Your task to perform on an android device: turn on the 24-hour format for clock Image 0: 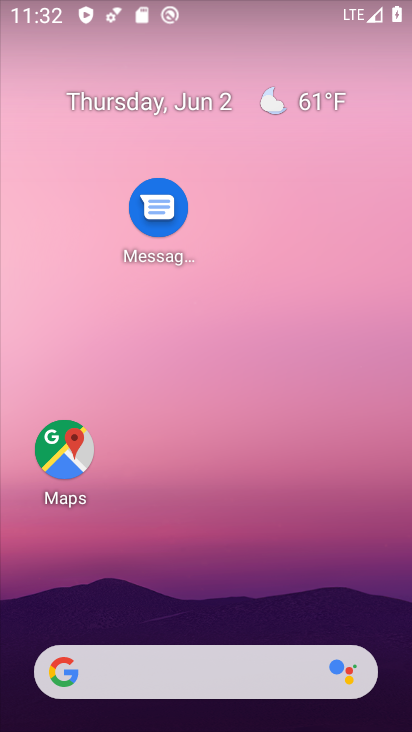
Step 0: drag from (238, 627) to (379, 18)
Your task to perform on an android device: turn on the 24-hour format for clock Image 1: 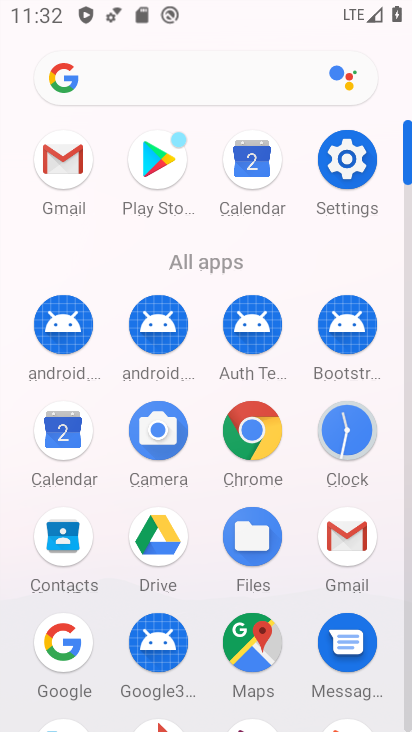
Step 1: click (351, 437)
Your task to perform on an android device: turn on the 24-hour format for clock Image 2: 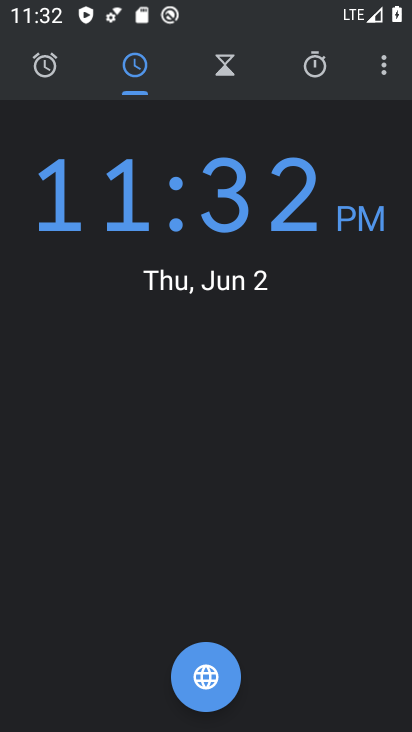
Step 2: click (381, 63)
Your task to perform on an android device: turn on the 24-hour format for clock Image 3: 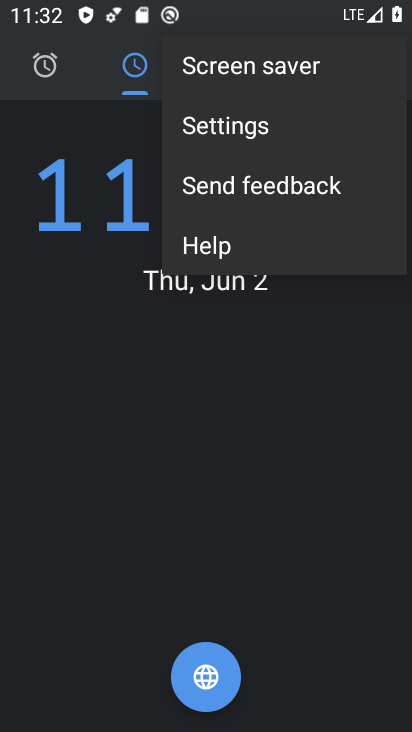
Step 3: click (267, 123)
Your task to perform on an android device: turn on the 24-hour format for clock Image 4: 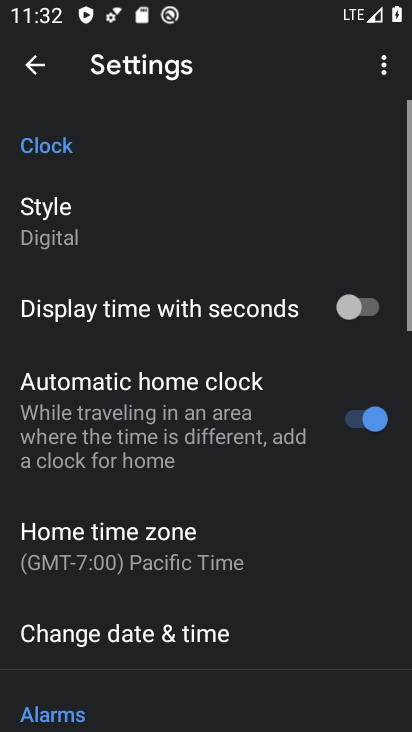
Step 4: drag from (211, 511) to (198, 208)
Your task to perform on an android device: turn on the 24-hour format for clock Image 5: 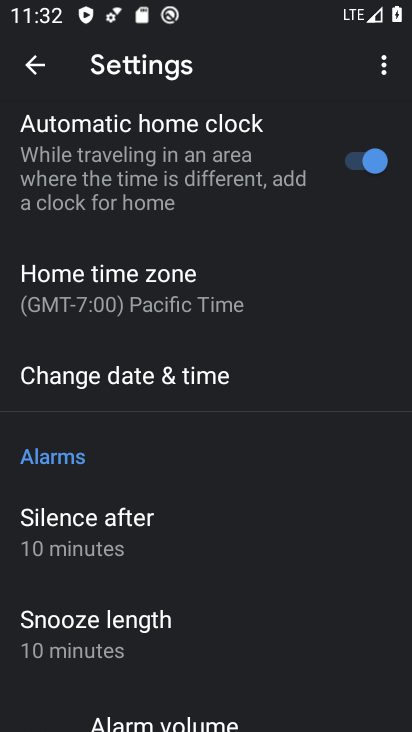
Step 5: click (164, 357)
Your task to perform on an android device: turn on the 24-hour format for clock Image 6: 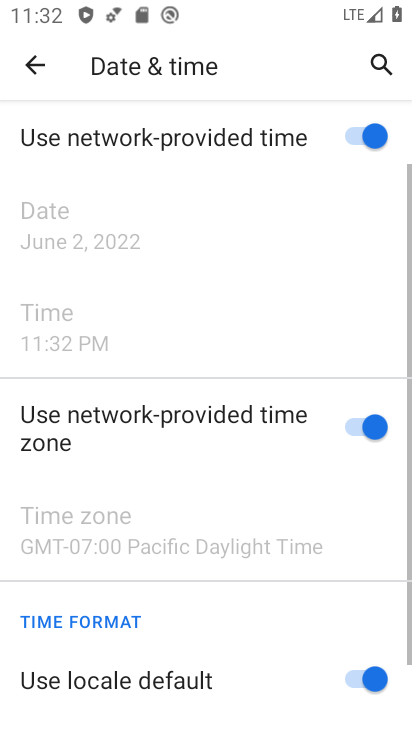
Step 6: drag from (210, 530) to (192, 48)
Your task to perform on an android device: turn on the 24-hour format for clock Image 7: 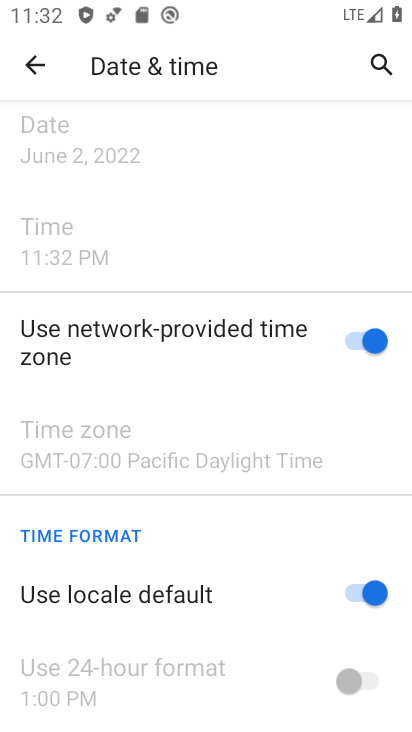
Step 7: click (372, 585)
Your task to perform on an android device: turn on the 24-hour format for clock Image 8: 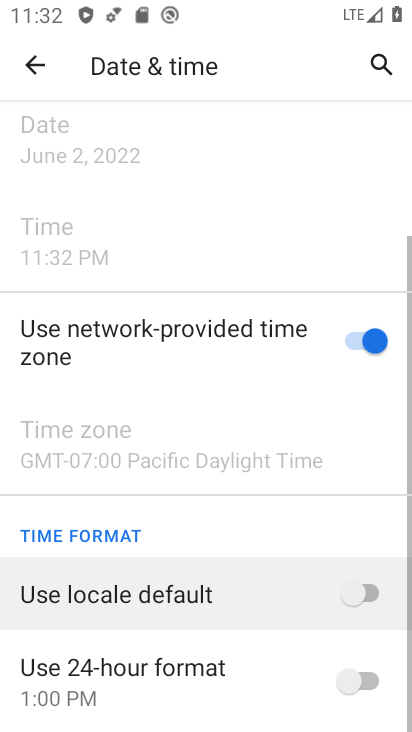
Step 8: click (362, 671)
Your task to perform on an android device: turn on the 24-hour format for clock Image 9: 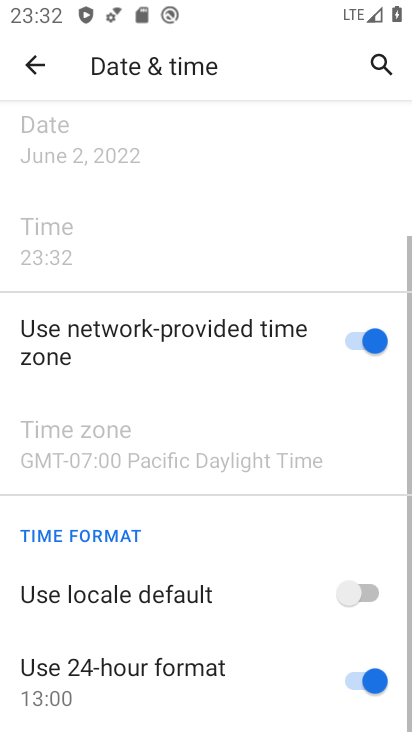
Step 9: task complete